Your task to perform on an android device: turn on data saver in the chrome app Image 0: 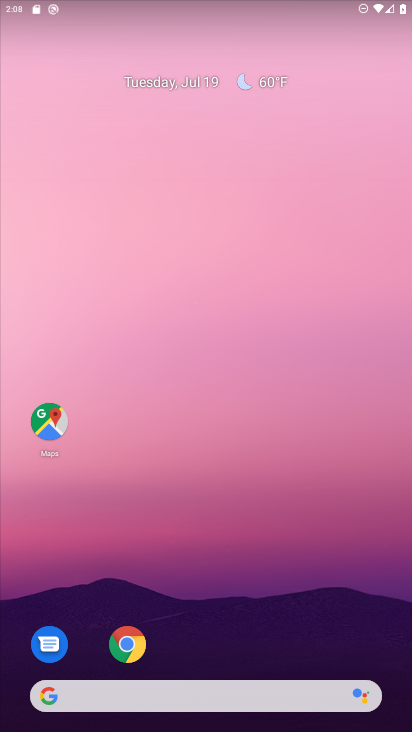
Step 0: click (125, 638)
Your task to perform on an android device: turn on data saver in the chrome app Image 1: 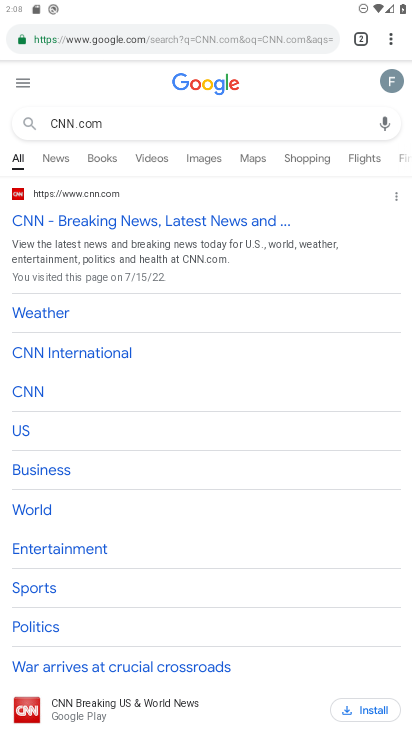
Step 1: click (391, 34)
Your task to perform on an android device: turn on data saver in the chrome app Image 2: 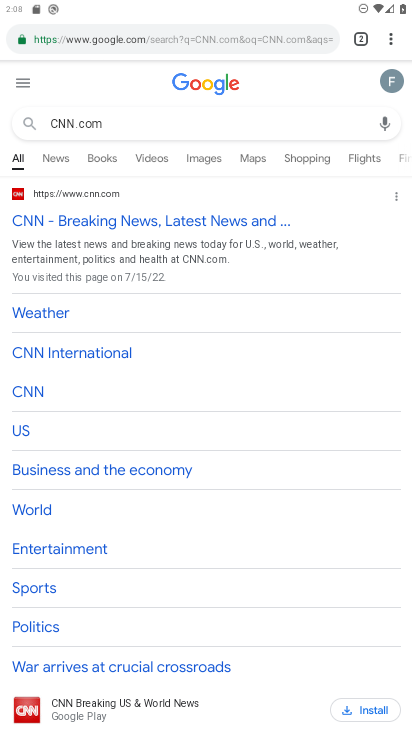
Step 2: click (386, 43)
Your task to perform on an android device: turn on data saver in the chrome app Image 3: 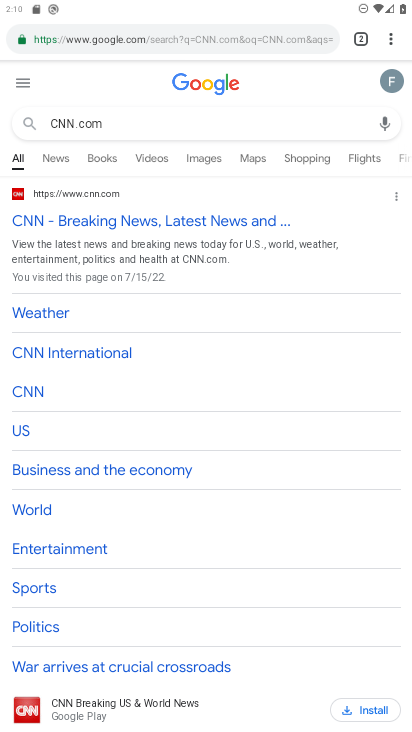
Step 3: click (392, 36)
Your task to perform on an android device: turn on data saver in the chrome app Image 4: 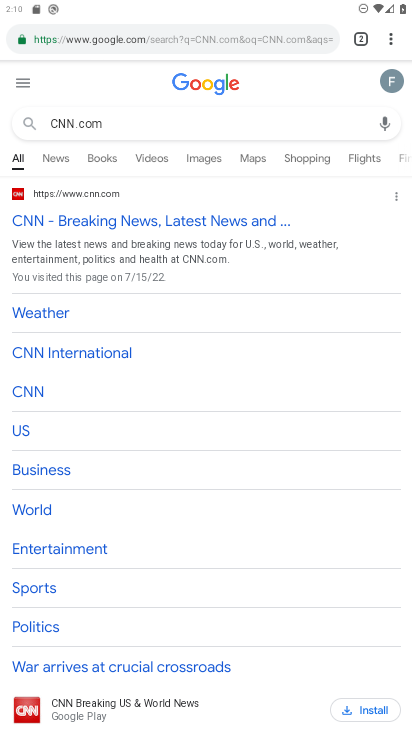
Step 4: click (388, 33)
Your task to perform on an android device: turn on data saver in the chrome app Image 5: 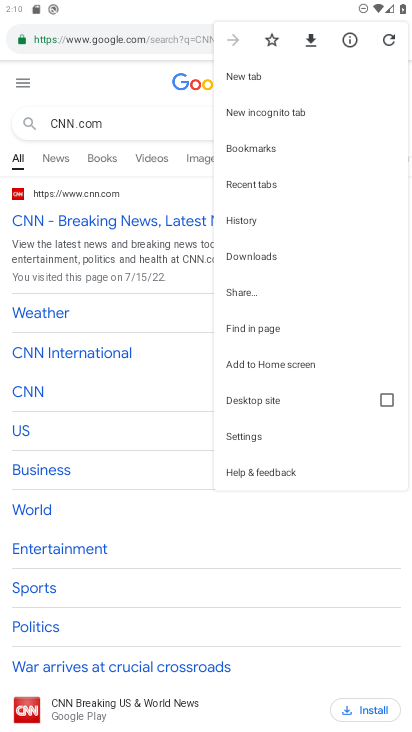
Step 5: click (255, 431)
Your task to perform on an android device: turn on data saver in the chrome app Image 6: 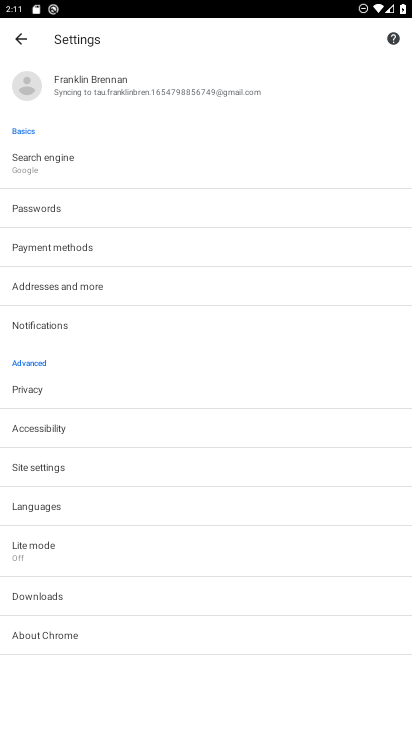
Step 6: click (55, 552)
Your task to perform on an android device: turn on data saver in the chrome app Image 7: 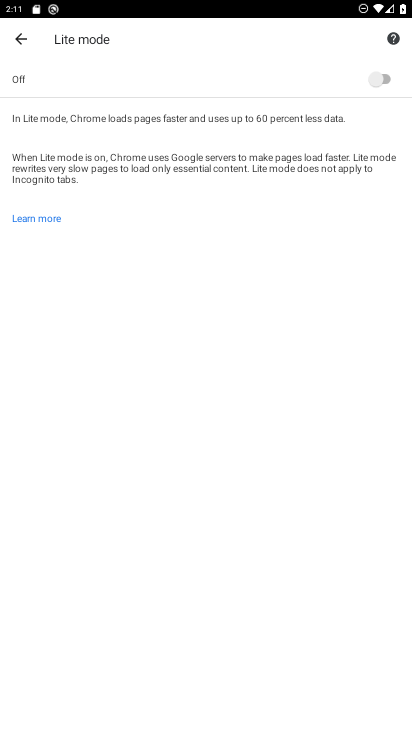
Step 7: click (384, 78)
Your task to perform on an android device: turn on data saver in the chrome app Image 8: 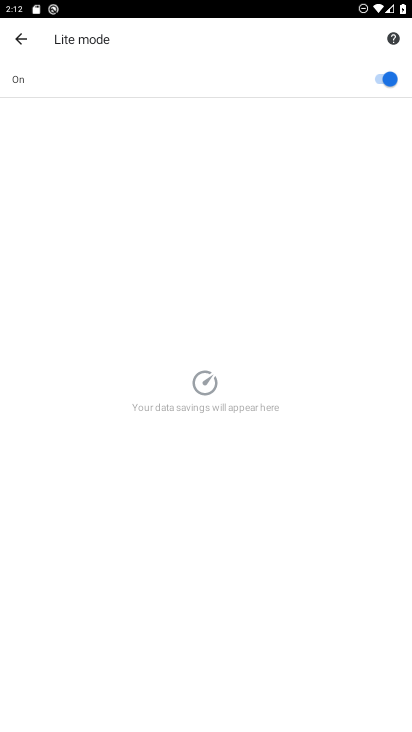
Step 8: task complete